Your task to perform on an android device: Open privacy settings Image 0: 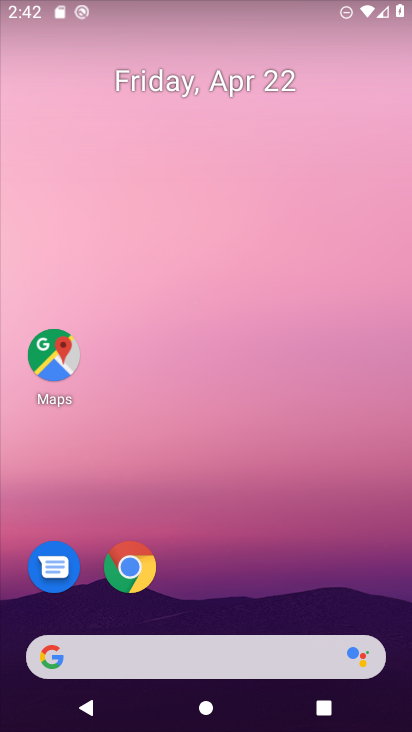
Step 0: drag from (233, 581) to (228, 68)
Your task to perform on an android device: Open privacy settings Image 1: 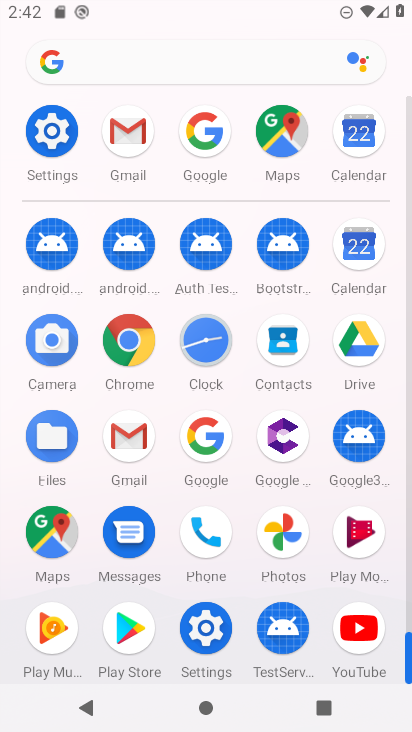
Step 1: click (56, 116)
Your task to perform on an android device: Open privacy settings Image 2: 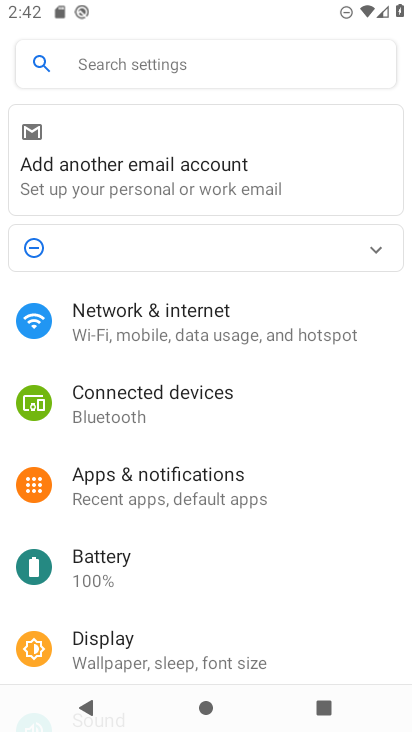
Step 2: drag from (240, 503) to (238, 134)
Your task to perform on an android device: Open privacy settings Image 3: 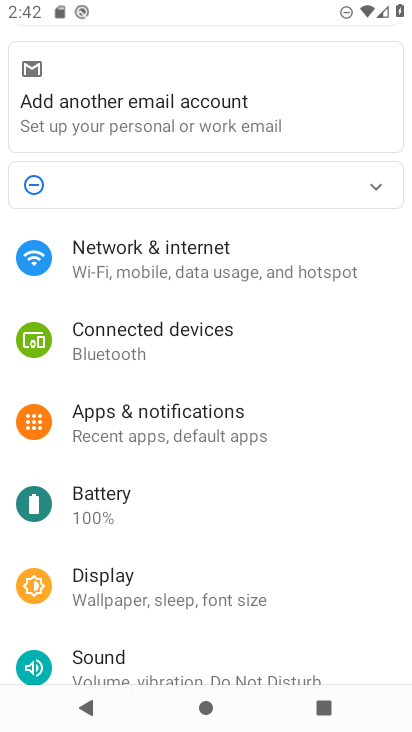
Step 3: drag from (228, 403) to (229, 138)
Your task to perform on an android device: Open privacy settings Image 4: 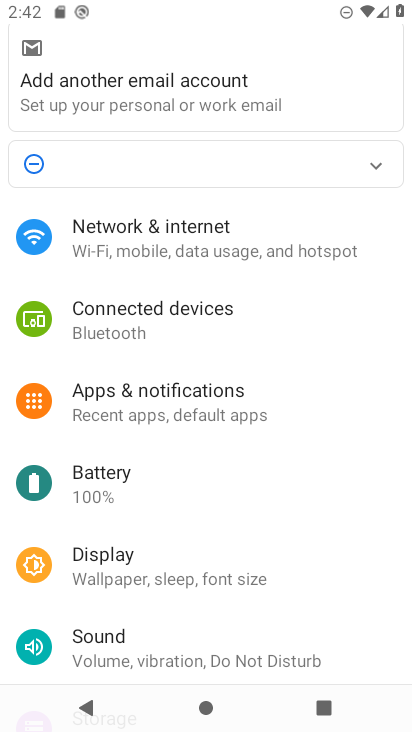
Step 4: drag from (226, 599) to (231, 159)
Your task to perform on an android device: Open privacy settings Image 5: 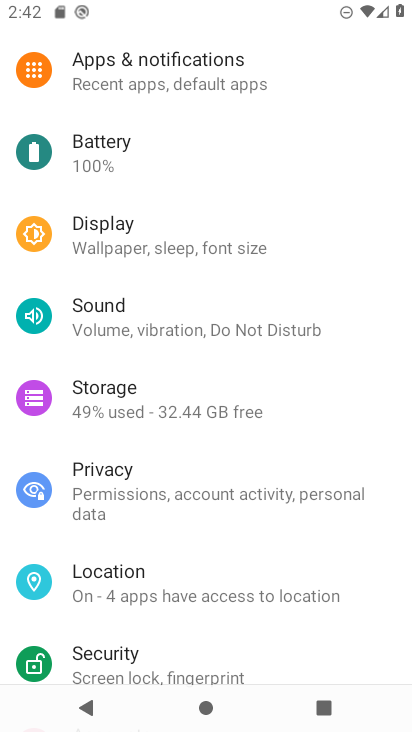
Step 5: click (201, 501)
Your task to perform on an android device: Open privacy settings Image 6: 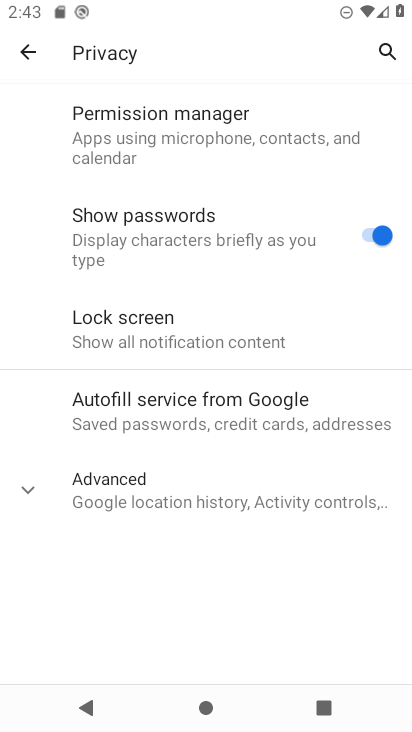
Step 6: task complete